Your task to perform on an android device: Is it going to rain today? Image 0: 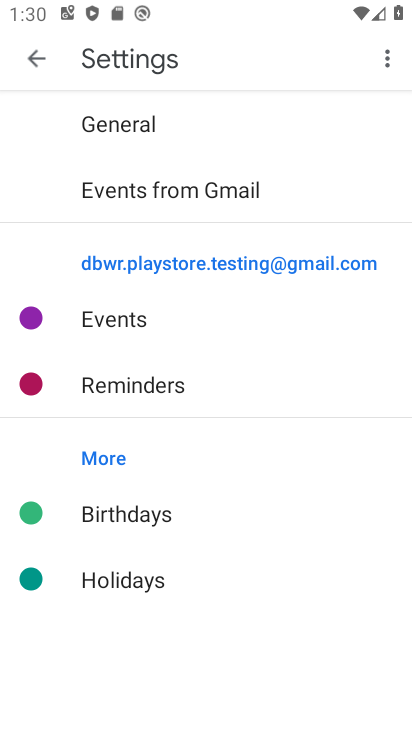
Step 0: press home button
Your task to perform on an android device: Is it going to rain today? Image 1: 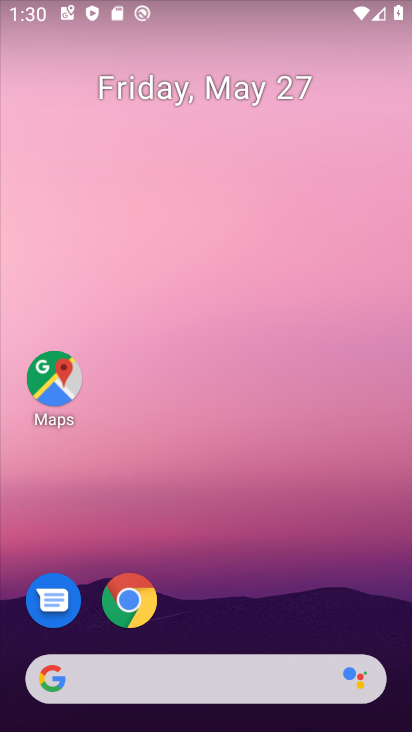
Step 1: drag from (216, 711) to (215, 68)
Your task to perform on an android device: Is it going to rain today? Image 2: 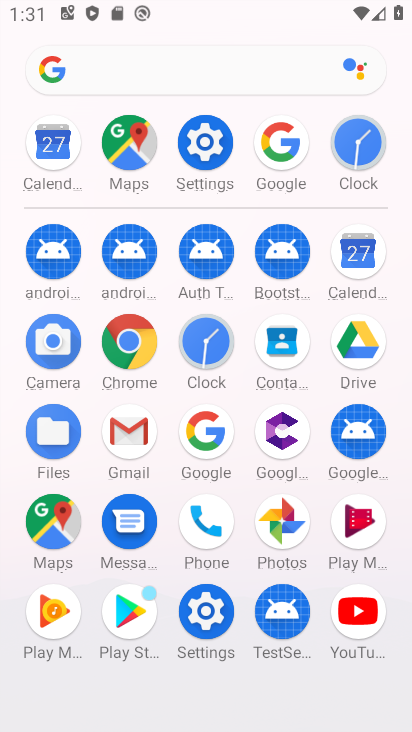
Step 2: click (210, 434)
Your task to perform on an android device: Is it going to rain today? Image 3: 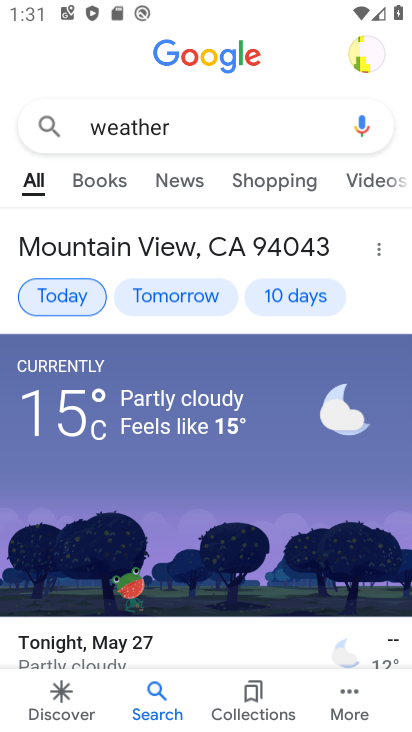
Step 3: click (54, 290)
Your task to perform on an android device: Is it going to rain today? Image 4: 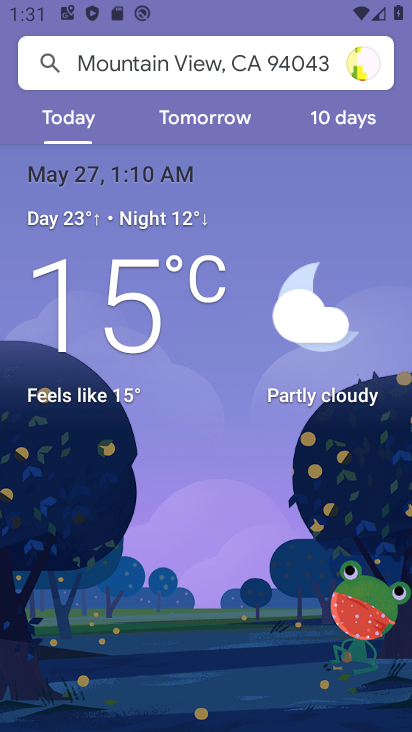
Step 4: task complete